Your task to perform on an android device: turn on improve location accuracy Image 0: 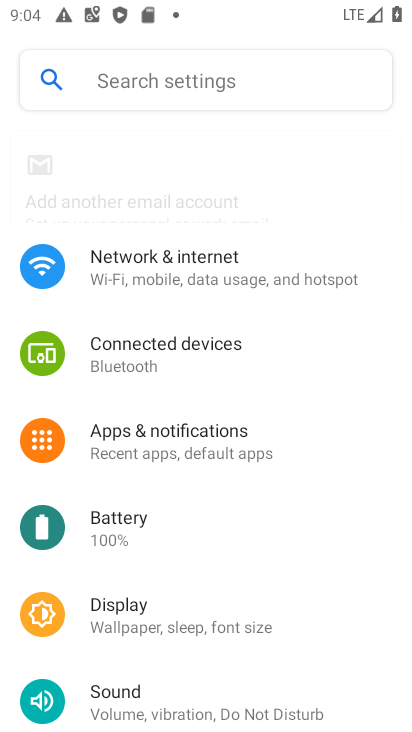
Step 0: press home button
Your task to perform on an android device: turn on improve location accuracy Image 1: 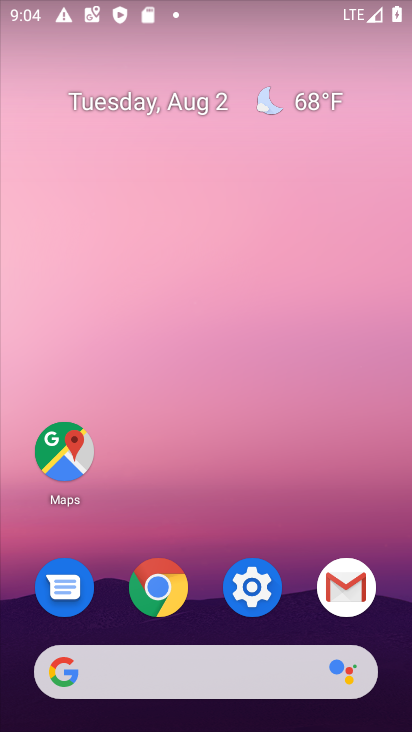
Step 1: click (252, 602)
Your task to perform on an android device: turn on improve location accuracy Image 2: 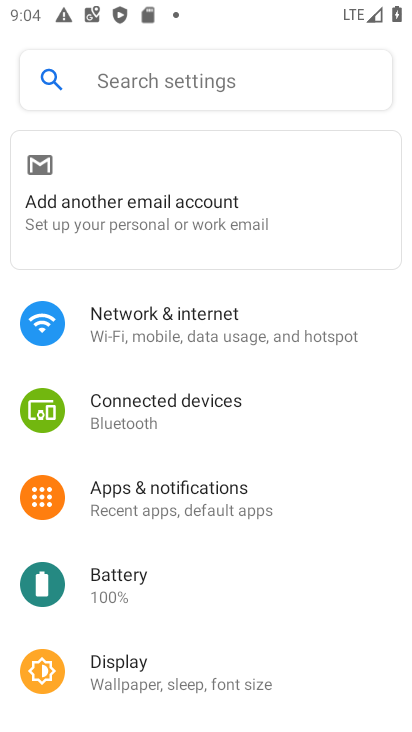
Step 2: click (174, 85)
Your task to perform on an android device: turn on improve location accuracy Image 3: 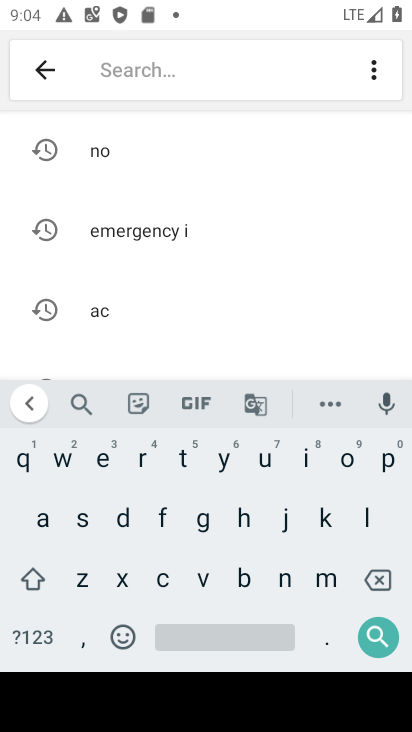
Step 3: click (368, 526)
Your task to perform on an android device: turn on improve location accuracy Image 4: 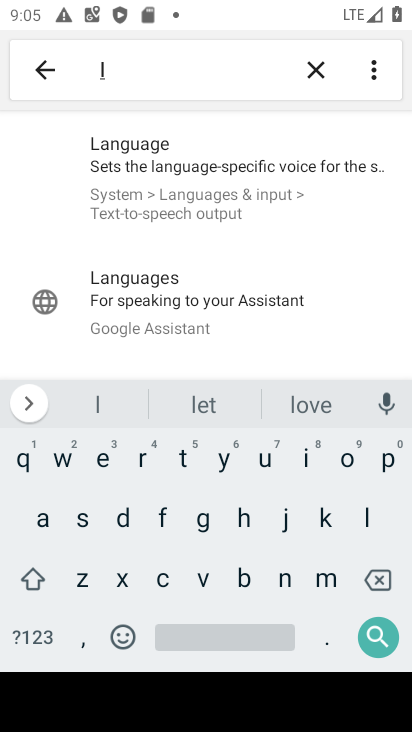
Step 4: click (351, 458)
Your task to perform on an android device: turn on improve location accuracy Image 5: 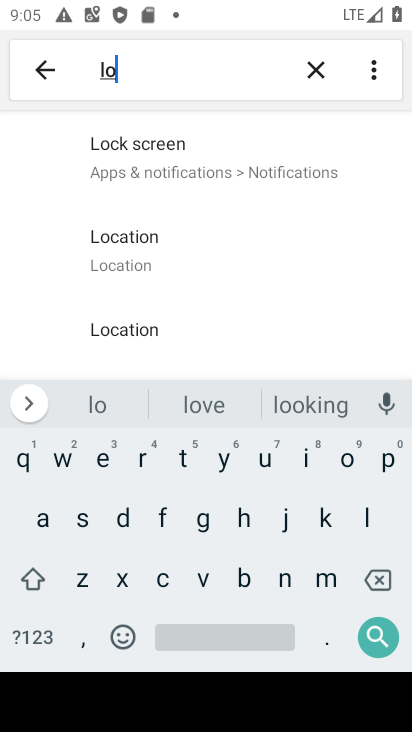
Step 5: click (192, 243)
Your task to perform on an android device: turn on improve location accuracy Image 6: 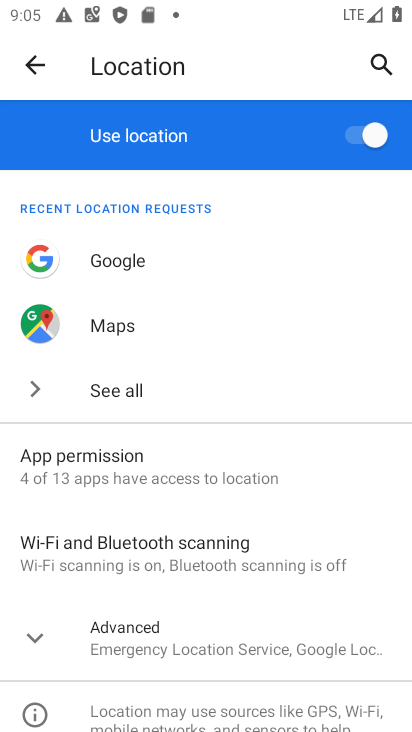
Step 6: click (70, 654)
Your task to perform on an android device: turn on improve location accuracy Image 7: 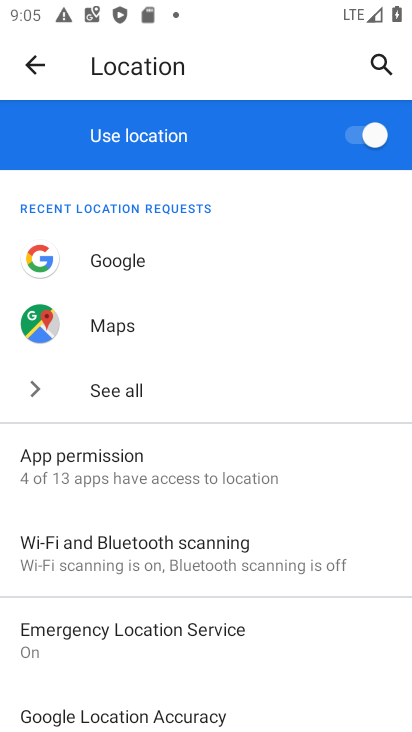
Step 7: click (157, 696)
Your task to perform on an android device: turn on improve location accuracy Image 8: 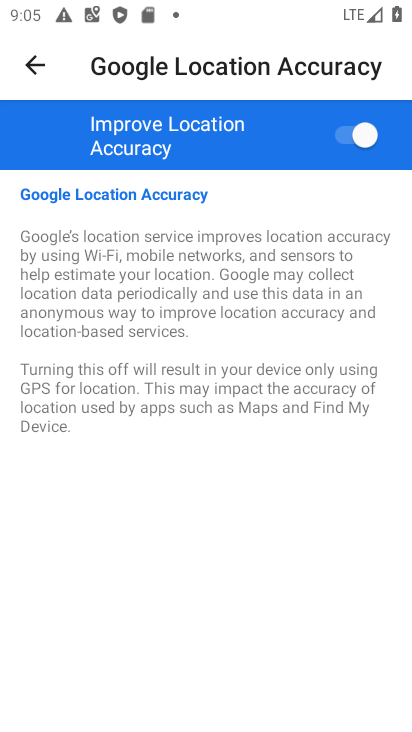
Step 8: task complete